Your task to perform on an android device: Set the phone to "Do not disturb". Image 0: 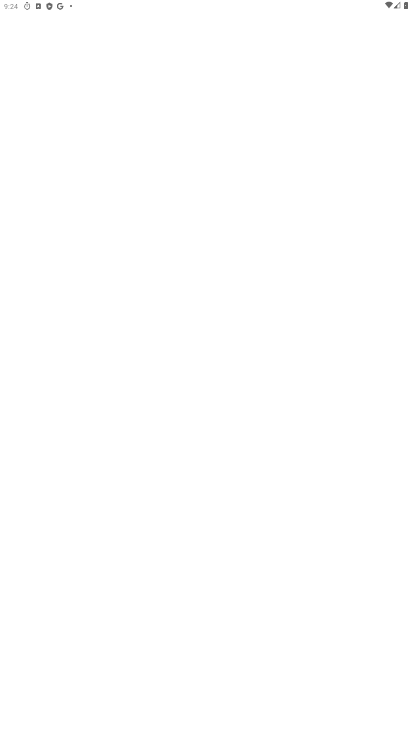
Step 0: press home button
Your task to perform on an android device: Set the phone to "Do not disturb". Image 1: 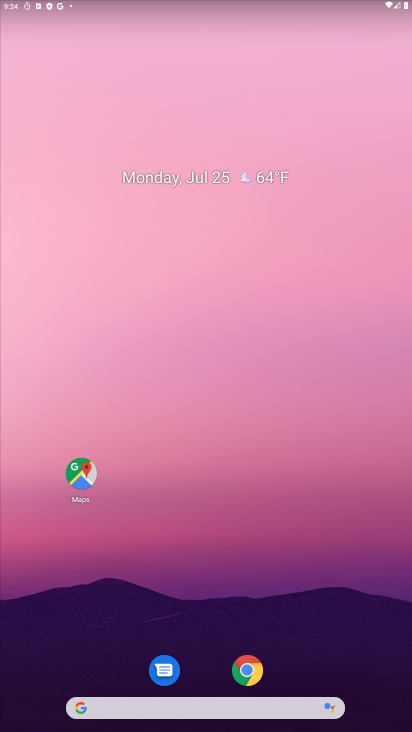
Step 1: drag from (184, 60) to (182, 519)
Your task to perform on an android device: Set the phone to "Do not disturb". Image 2: 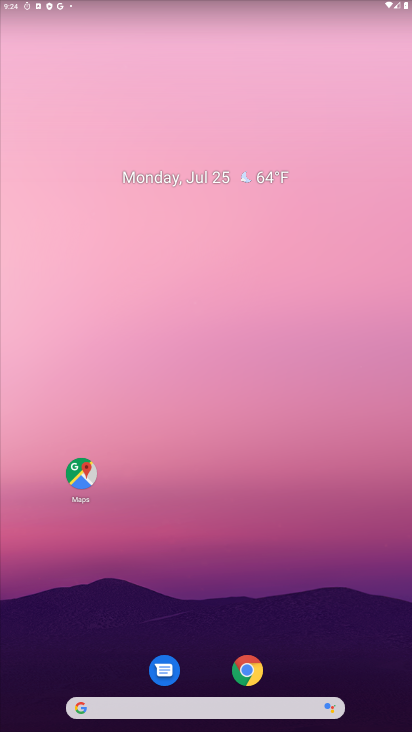
Step 2: drag from (173, 9) to (192, 588)
Your task to perform on an android device: Set the phone to "Do not disturb". Image 3: 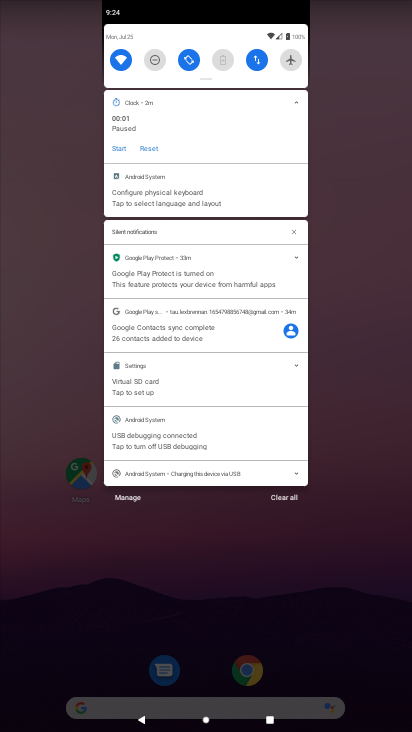
Step 3: click (154, 60)
Your task to perform on an android device: Set the phone to "Do not disturb". Image 4: 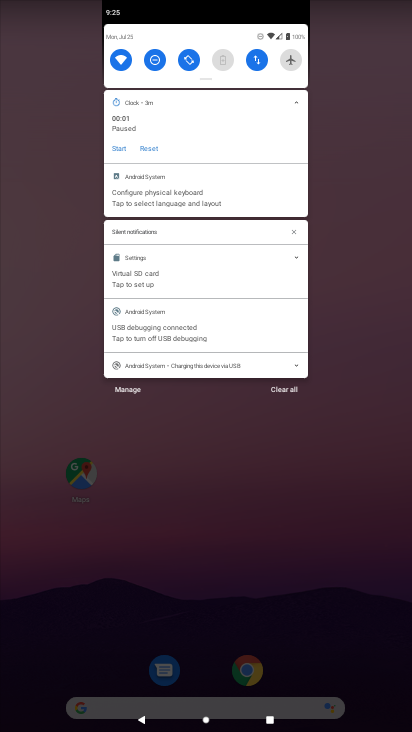
Step 4: task complete